Your task to perform on an android device: toggle airplane mode Image 0: 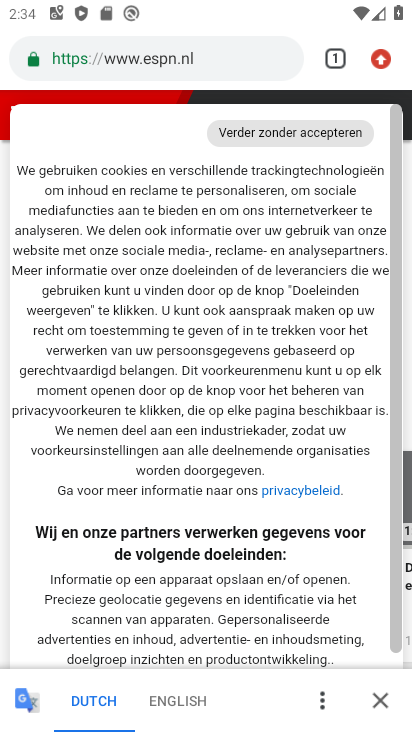
Step 0: press home button
Your task to perform on an android device: toggle airplane mode Image 1: 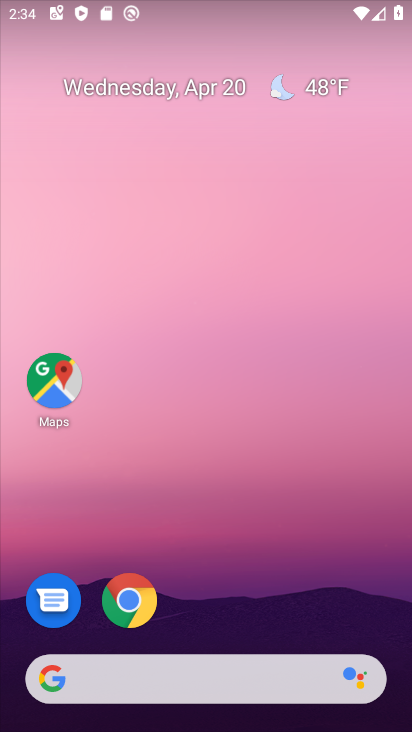
Step 1: drag from (256, 482) to (265, 74)
Your task to perform on an android device: toggle airplane mode Image 2: 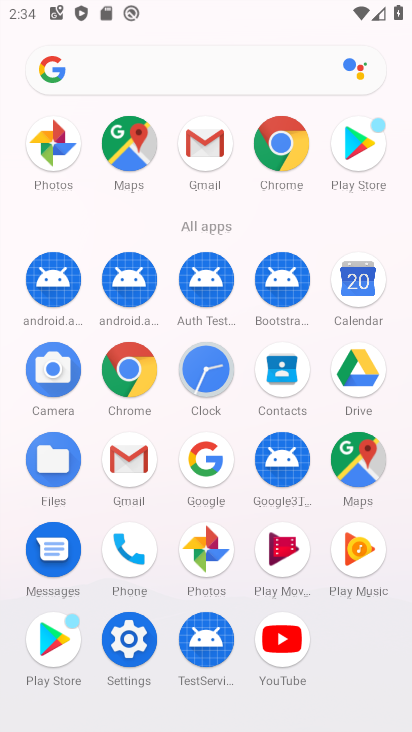
Step 2: click (138, 647)
Your task to perform on an android device: toggle airplane mode Image 3: 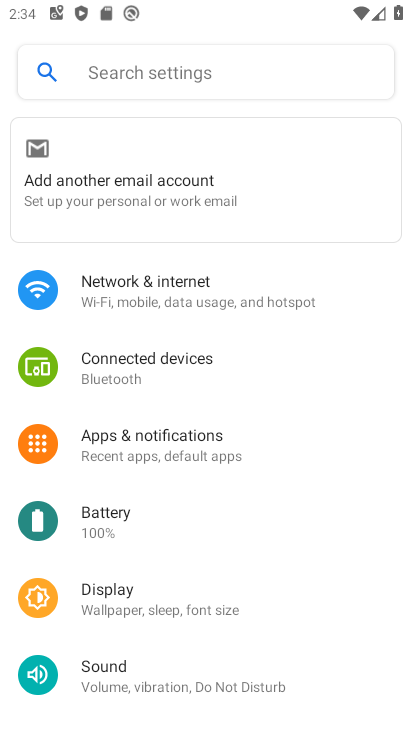
Step 3: click (125, 308)
Your task to perform on an android device: toggle airplane mode Image 4: 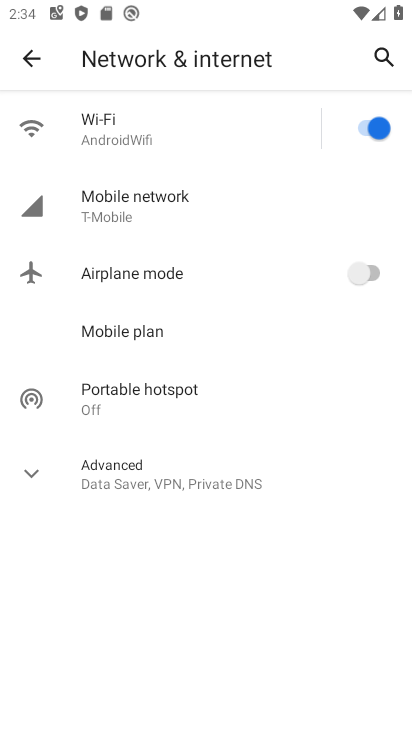
Step 4: click (369, 279)
Your task to perform on an android device: toggle airplane mode Image 5: 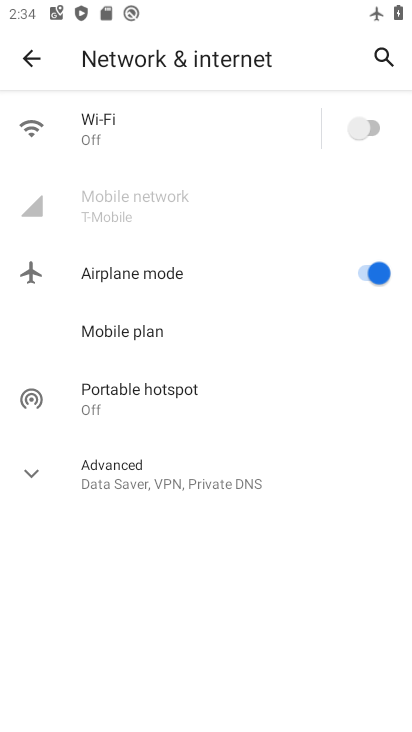
Step 5: task complete